Your task to perform on an android device: Go to network settings Image 0: 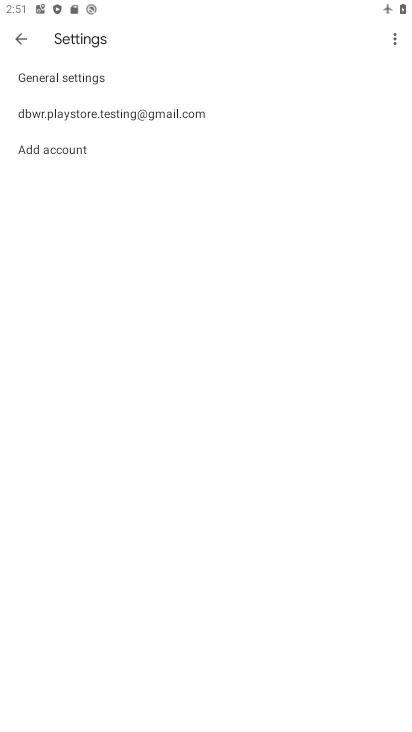
Step 0: press home button
Your task to perform on an android device: Go to network settings Image 1: 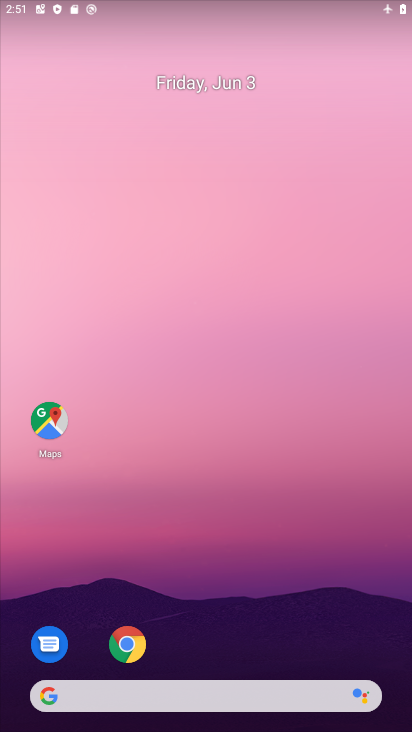
Step 1: drag from (229, 646) to (209, 222)
Your task to perform on an android device: Go to network settings Image 2: 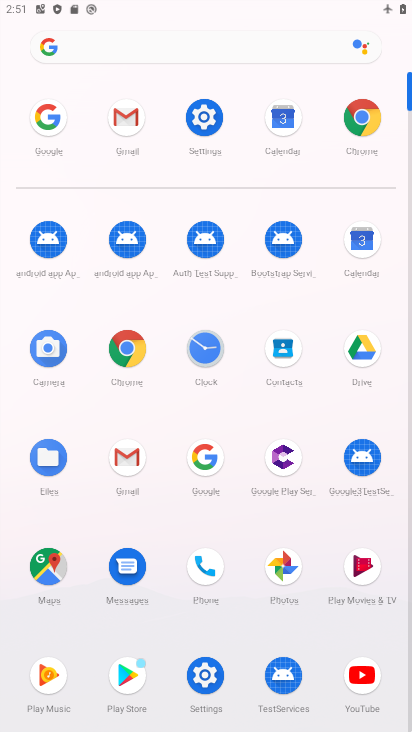
Step 2: click (201, 132)
Your task to perform on an android device: Go to network settings Image 3: 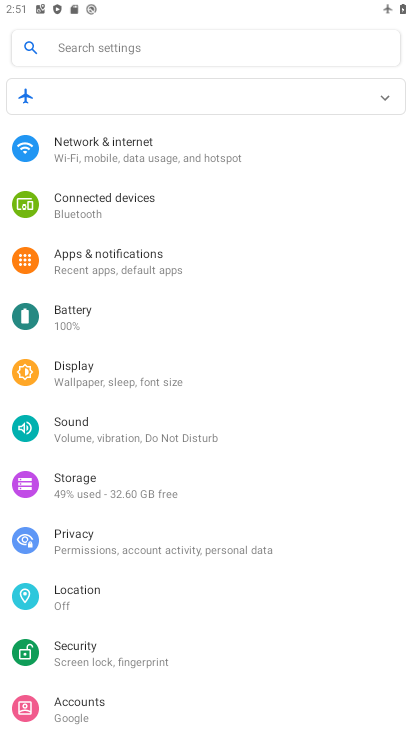
Step 3: click (170, 165)
Your task to perform on an android device: Go to network settings Image 4: 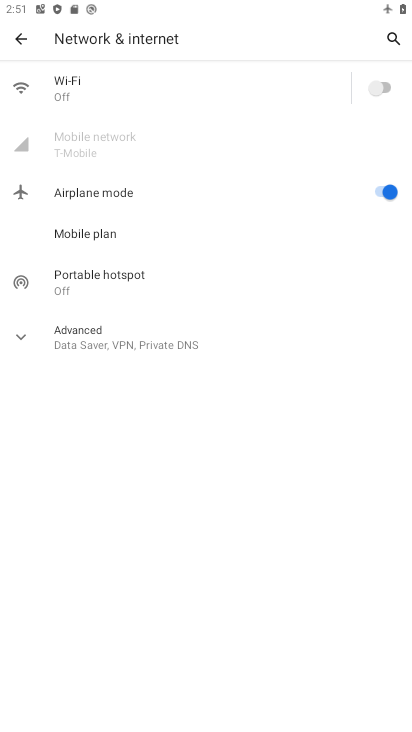
Step 4: task complete